Your task to perform on an android device: Go to Amazon Image 0: 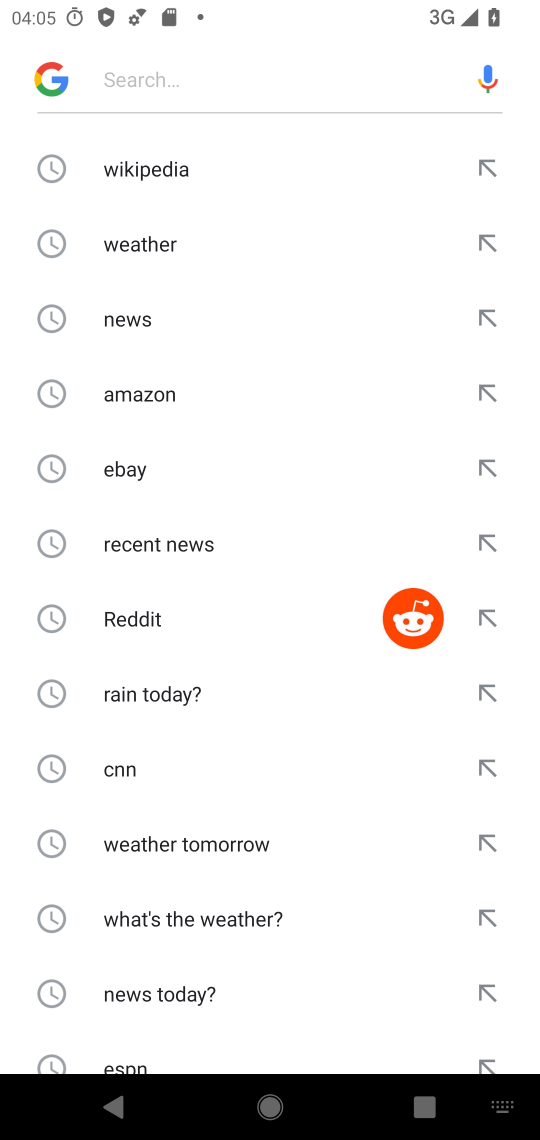
Step 0: press home button
Your task to perform on an android device: Go to Amazon Image 1: 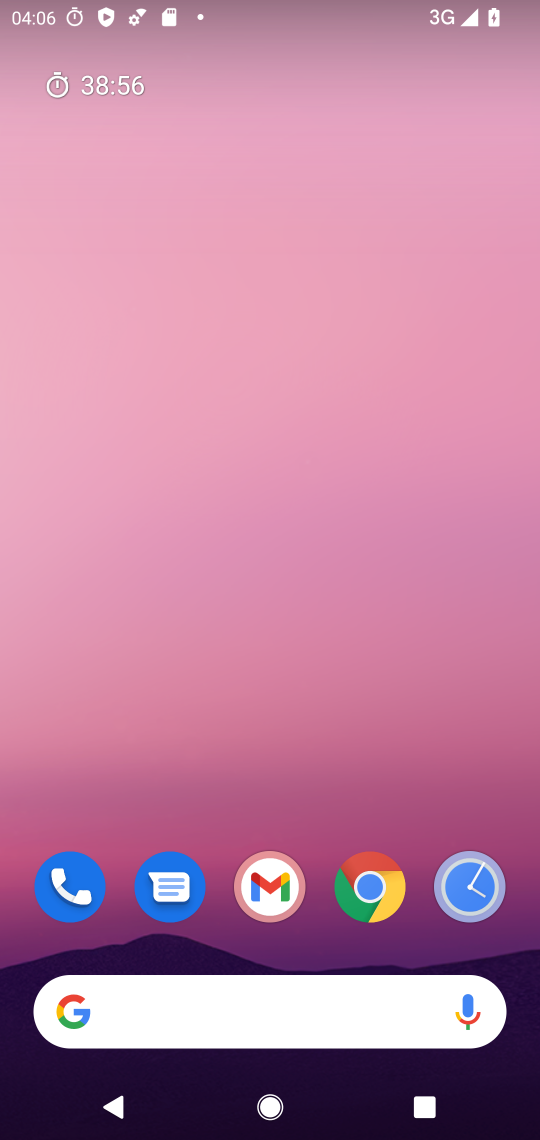
Step 1: drag from (410, 774) to (423, 260)
Your task to perform on an android device: Go to Amazon Image 2: 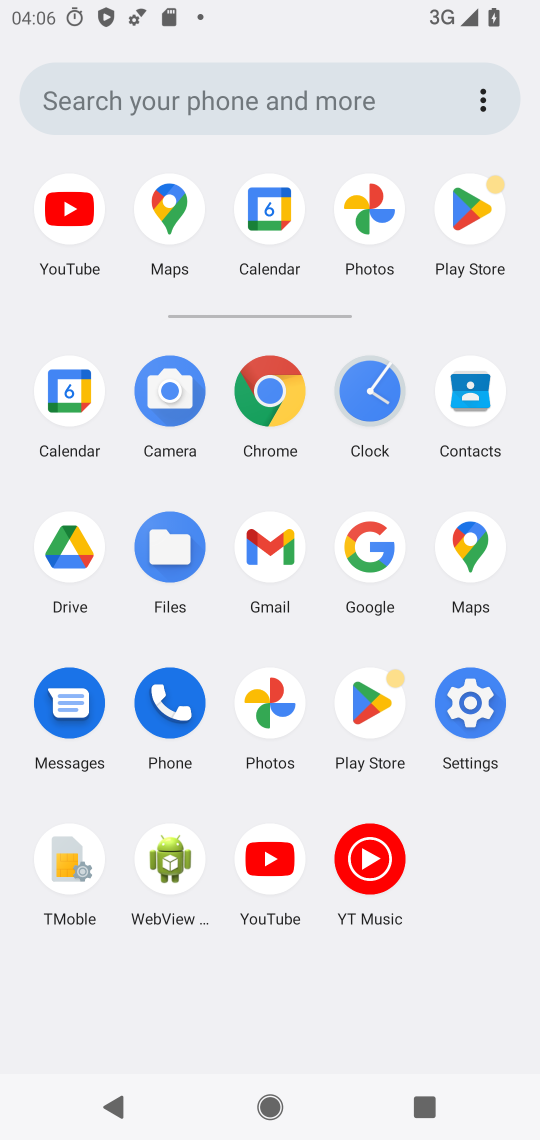
Step 2: click (269, 396)
Your task to perform on an android device: Go to Amazon Image 3: 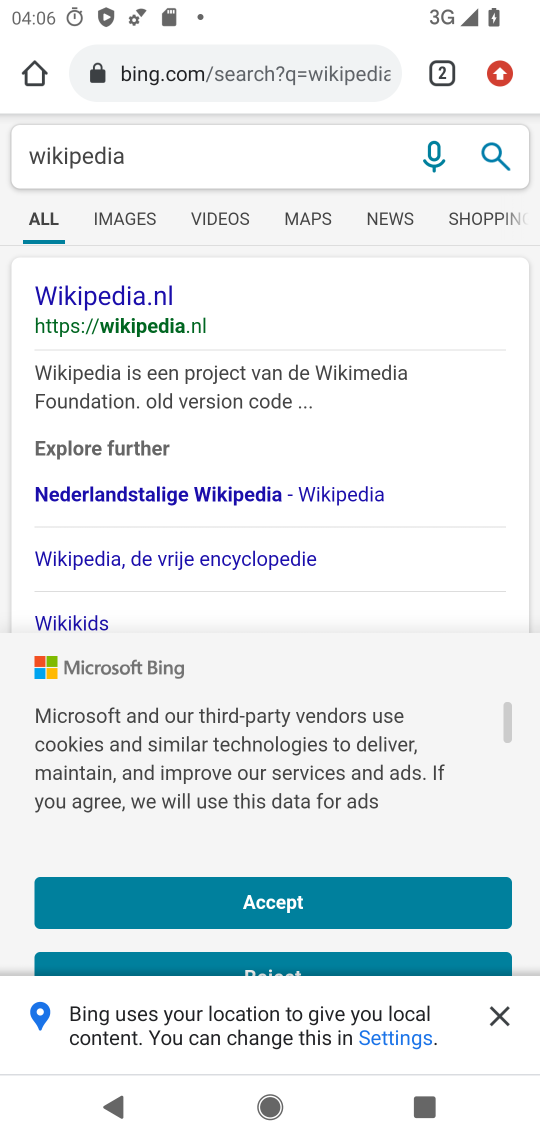
Step 3: click (292, 75)
Your task to perform on an android device: Go to Amazon Image 4: 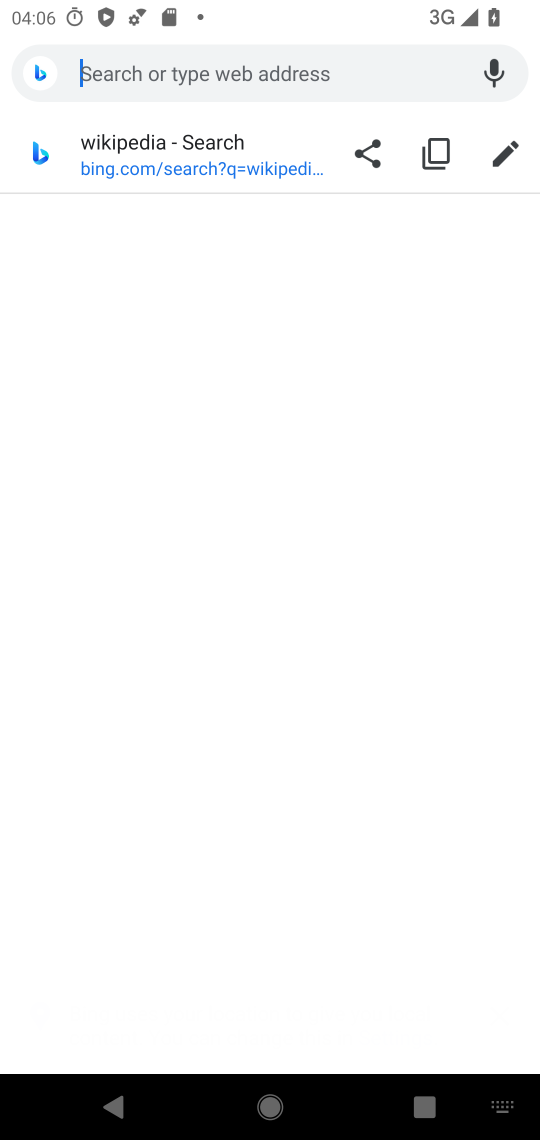
Step 4: type "amazon"
Your task to perform on an android device: Go to Amazon Image 5: 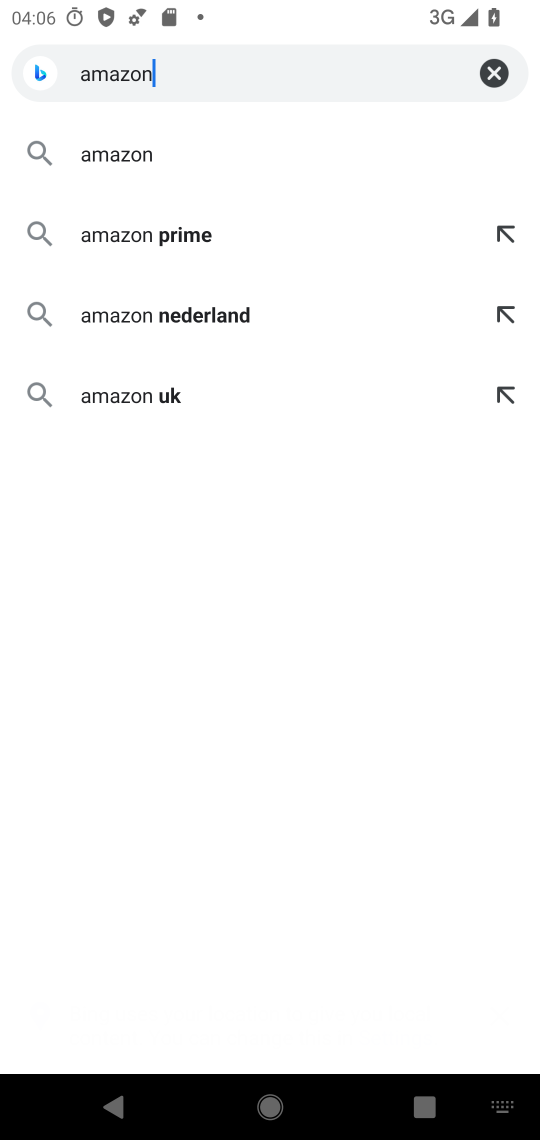
Step 5: click (342, 175)
Your task to perform on an android device: Go to Amazon Image 6: 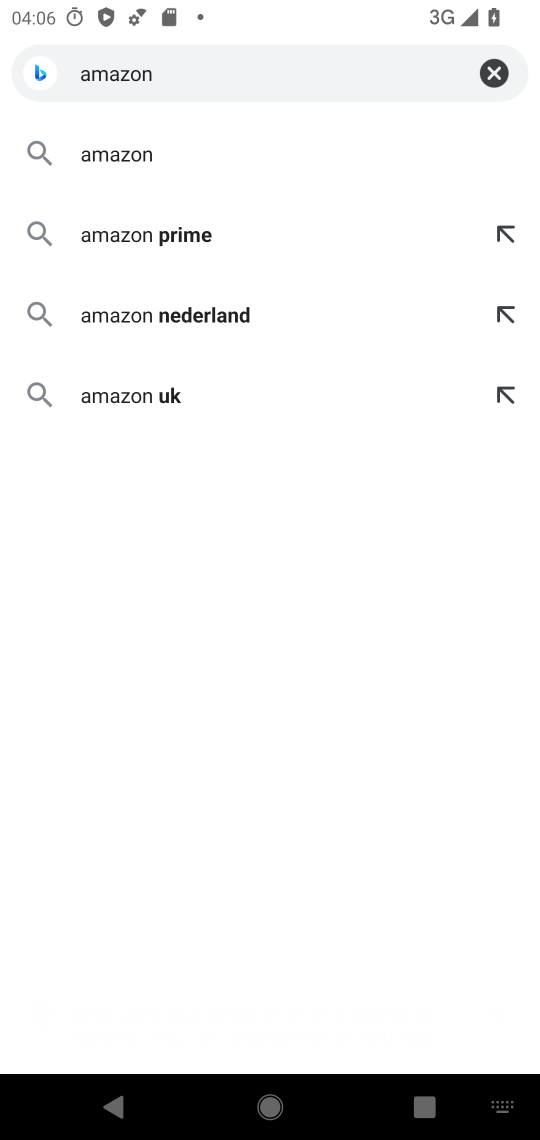
Step 6: click (196, 155)
Your task to perform on an android device: Go to Amazon Image 7: 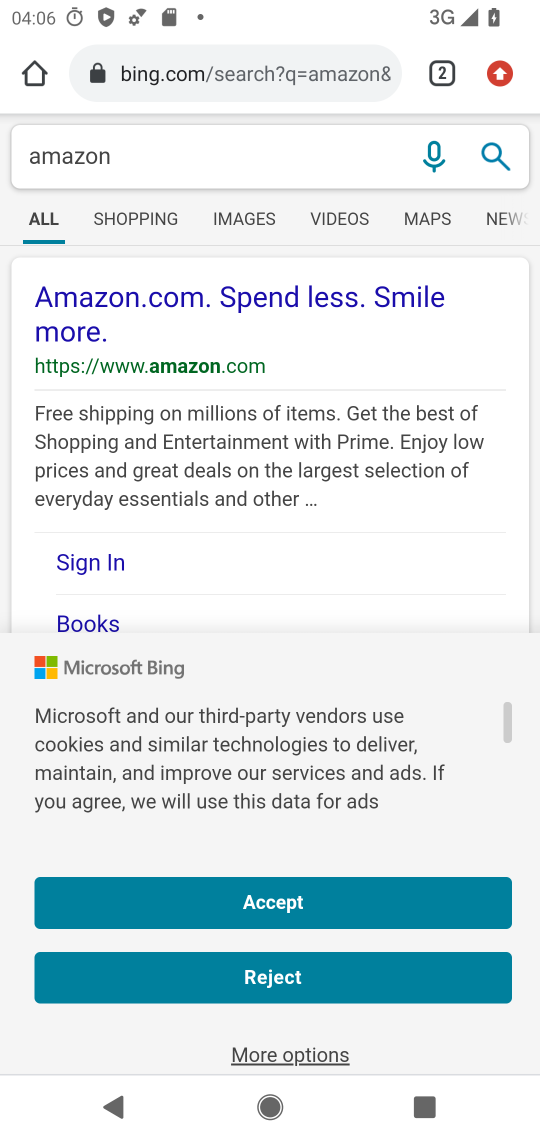
Step 7: task complete